Your task to perform on an android device: turn off translation in the chrome app Image 0: 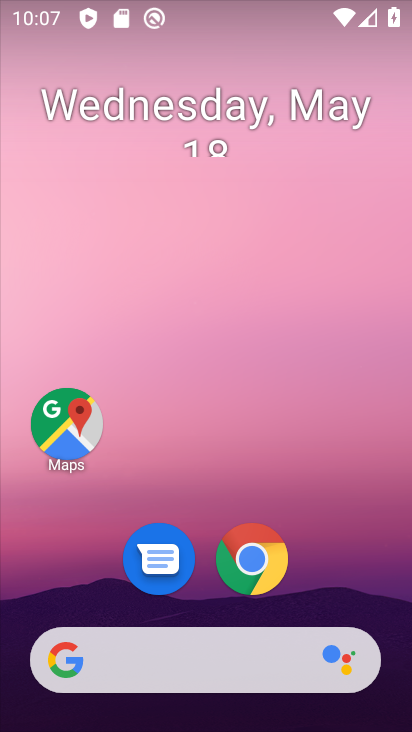
Step 0: click (265, 546)
Your task to perform on an android device: turn off translation in the chrome app Image 1: 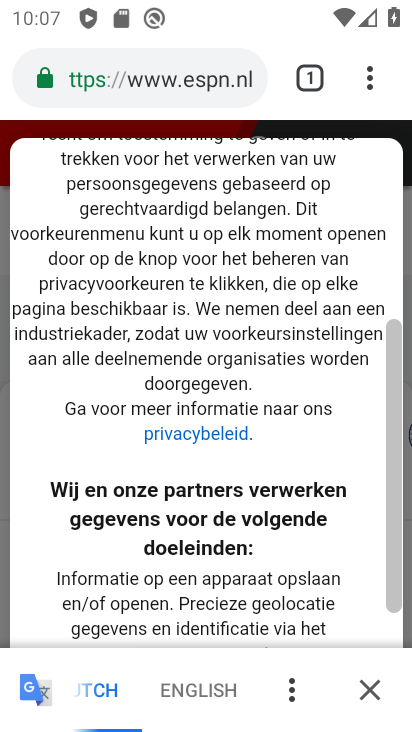
Step 1: click (374, 682)
Your task to perform on an android device: turn off translation in the chrome app Image 2: 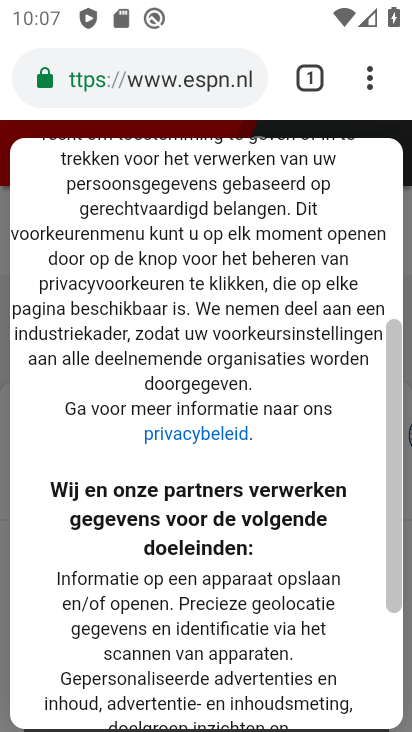
Step 2: click (370, 84)
Your task to perform on an android device: turn off translation in the chrome app Image 3: 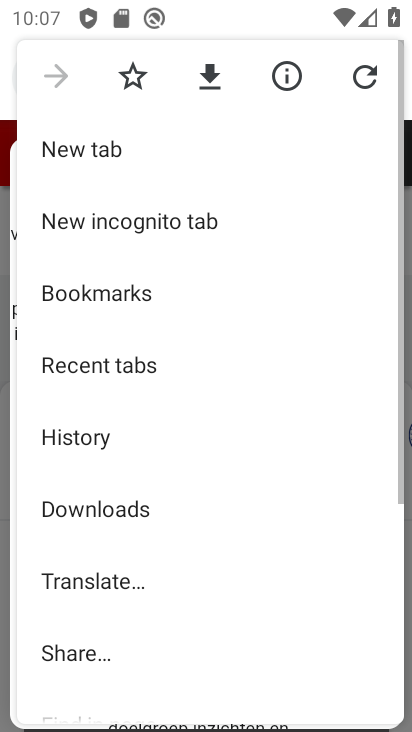
Step 3: drag from (120, 620) to (148, 289)
Your task to perform on an android device: turn off translation in the chrome app Image 4: 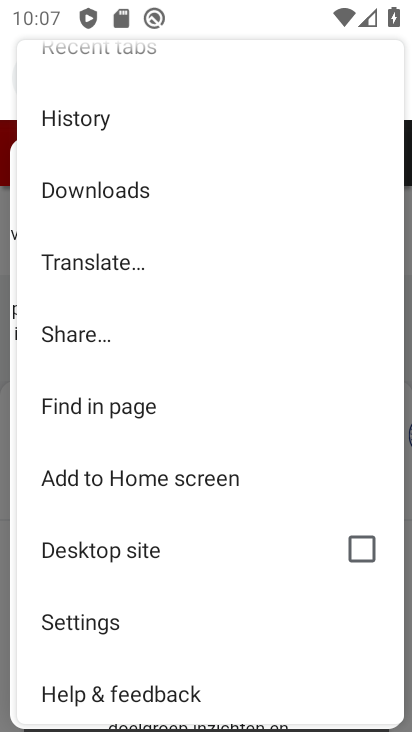
Step 4: drag from (108, 659) to (180, 350)
Your task to perform on an android device: turn off translation in the chrome app Image 5: 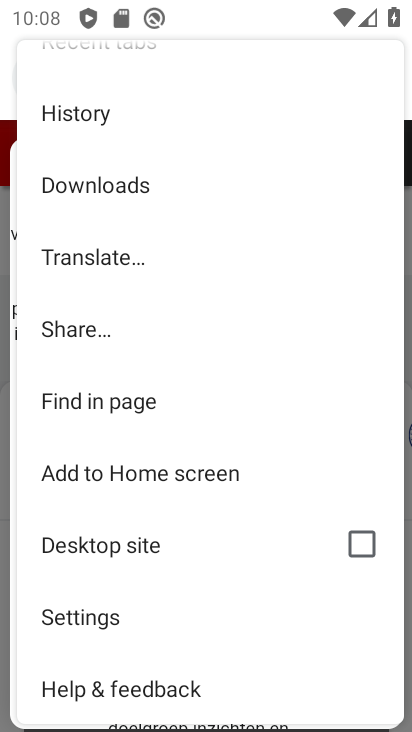
Step 5: click (87, 613)
Your task to perform on an android device: turn off translation in the chrome app Image 6: 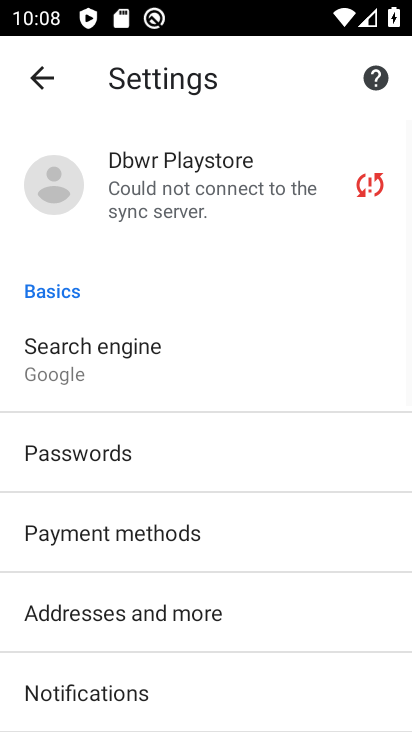
Step 6: drag from (169, 614) to (224, 141)
Your task to perform on an android device: turn off translation in the chrome app Image 7: 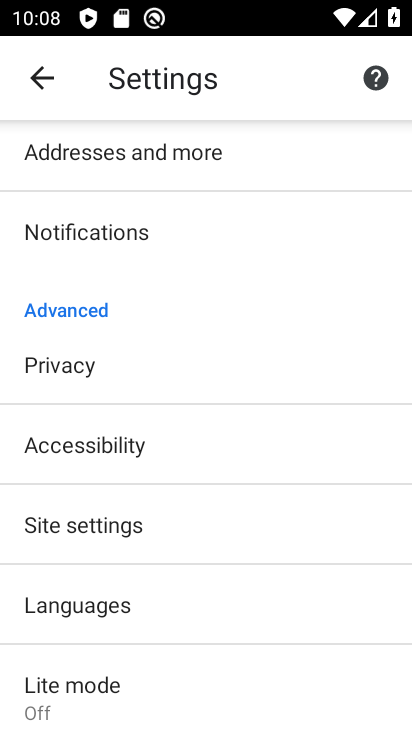
Step 7: click (106, 621)
Your task to perform on an android device: turn off translation in the chrome app Image 8: 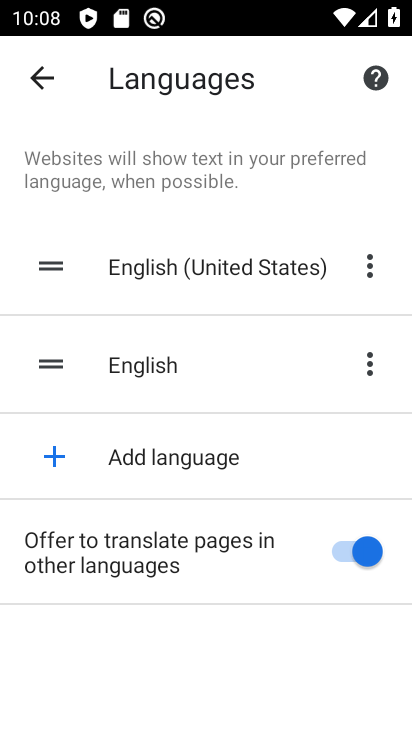
Step 8: click (330, 553)
Your task to perform on an android device: turn off translation in the chrome app Image 9: 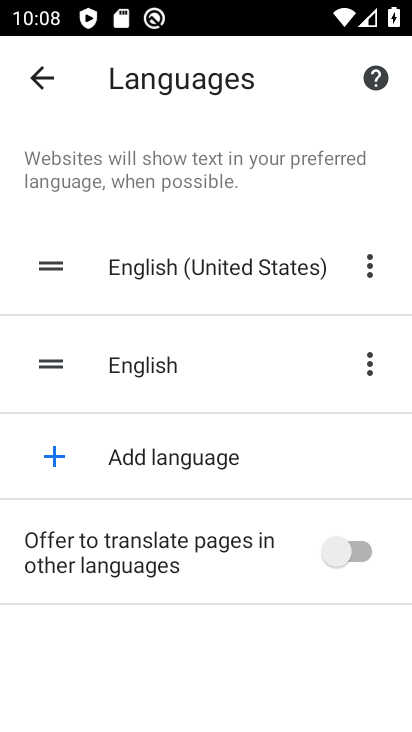
Step 9: task complete